Your task to perform on an android device: Turn off the flashlight Image 0: 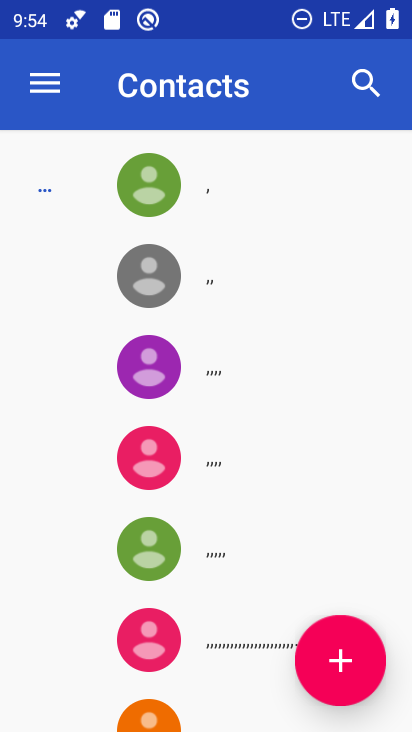
Step 0: press home button
Your task to perform on an android device: Turn off the flashlight Image 1: 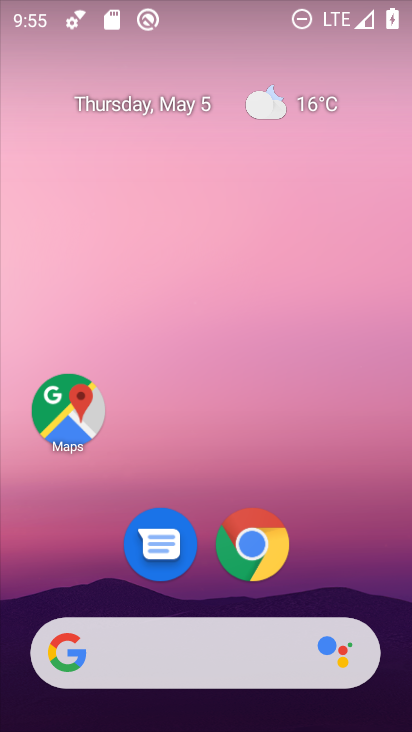
Step 1: drag from (406, 638) to (290, 28)
Your task to perform on an android device: Turn off the flashlight Image 2: 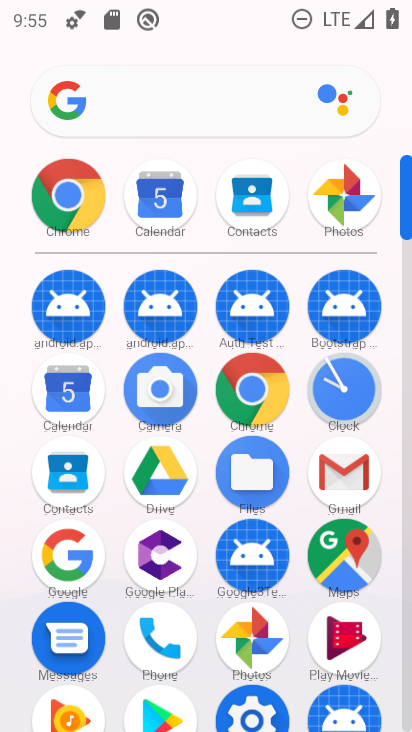
Step 2: click (275, 705)
Your task to perform on an android device: Turn off the flashlight Image 3: 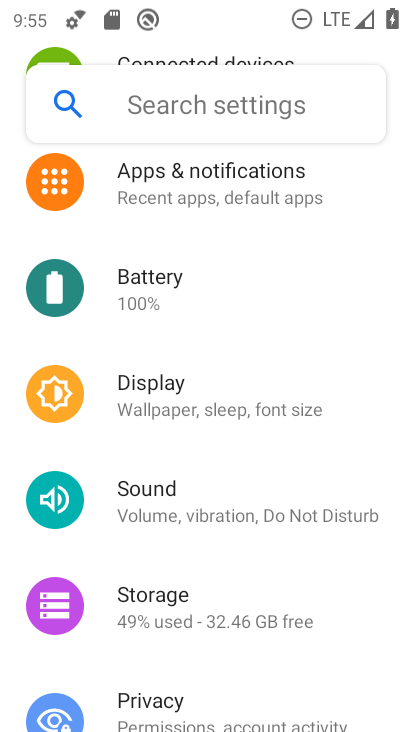
Step 3: task complete